Your task to perform on an android device: change notifications settings Image 0: 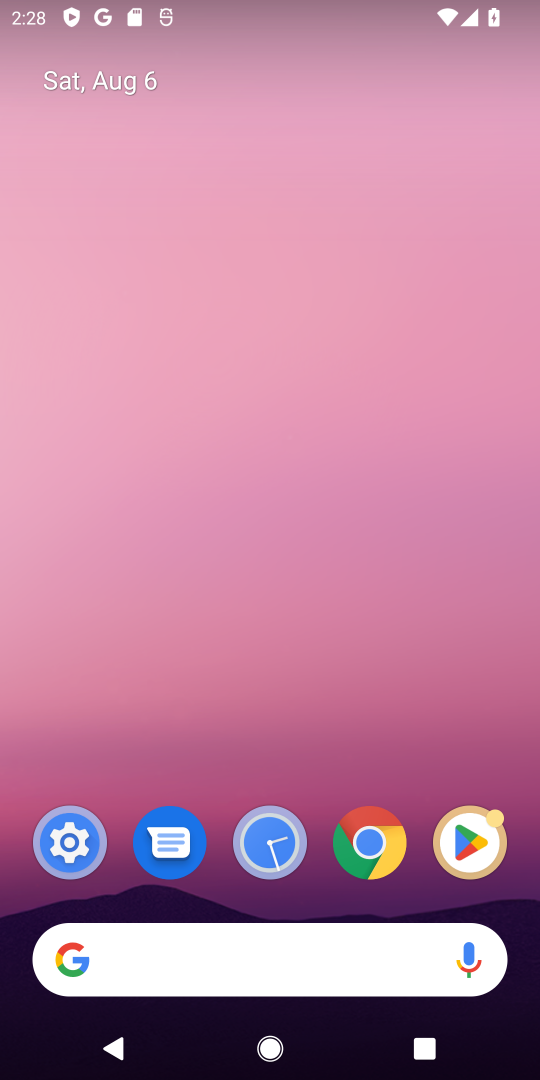
Step 0: drag from (506, 1016) to (386, 247)
Your task to perform on an android device: change notifications settings Image 1: 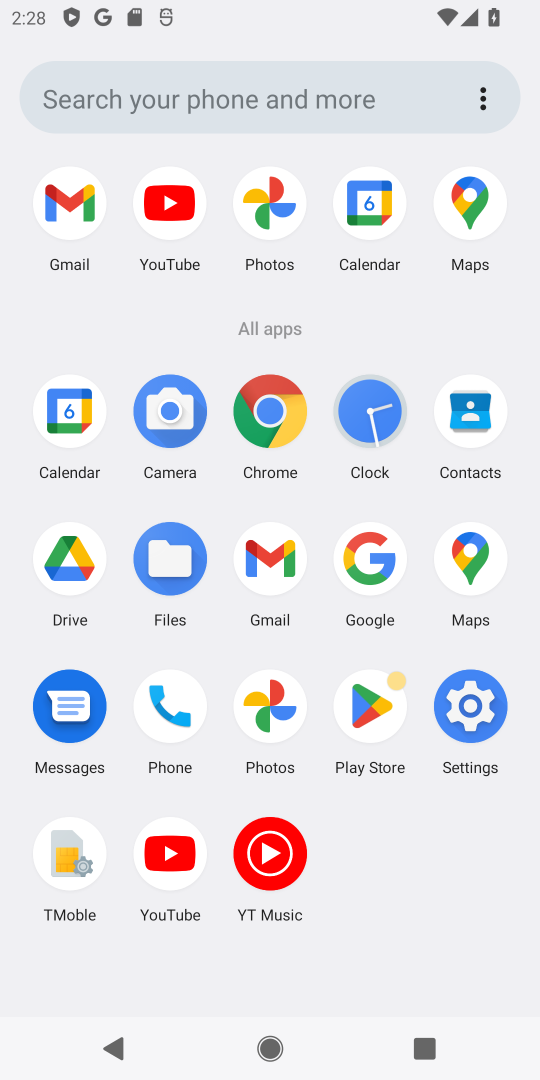
Step 1: click (482, 706)
Your task to perform on an android device: change notifications settings Image 2: 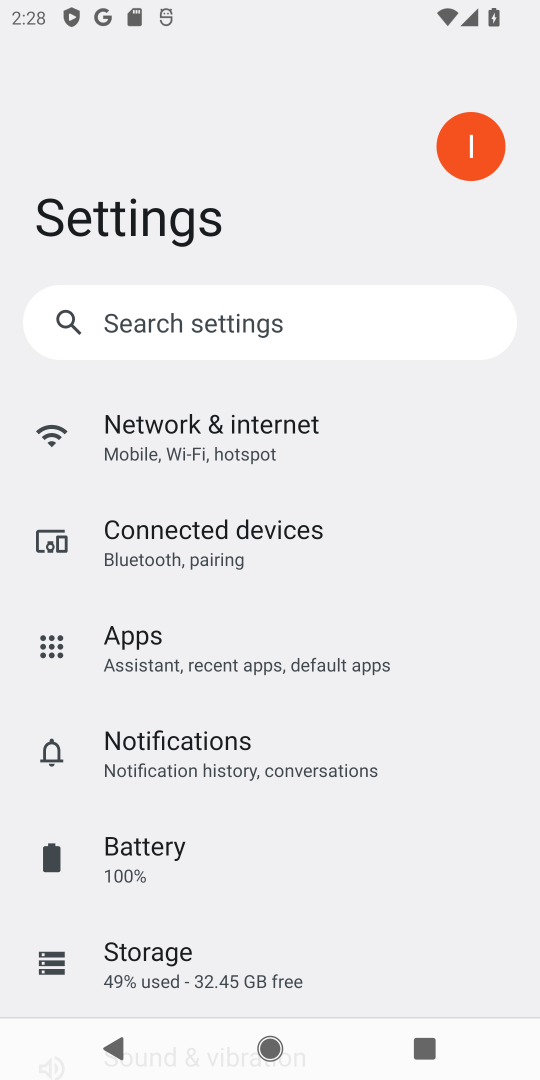
Step 2: click (175, 763)
Your task to perform on an android device: change notifications settings Image 3: 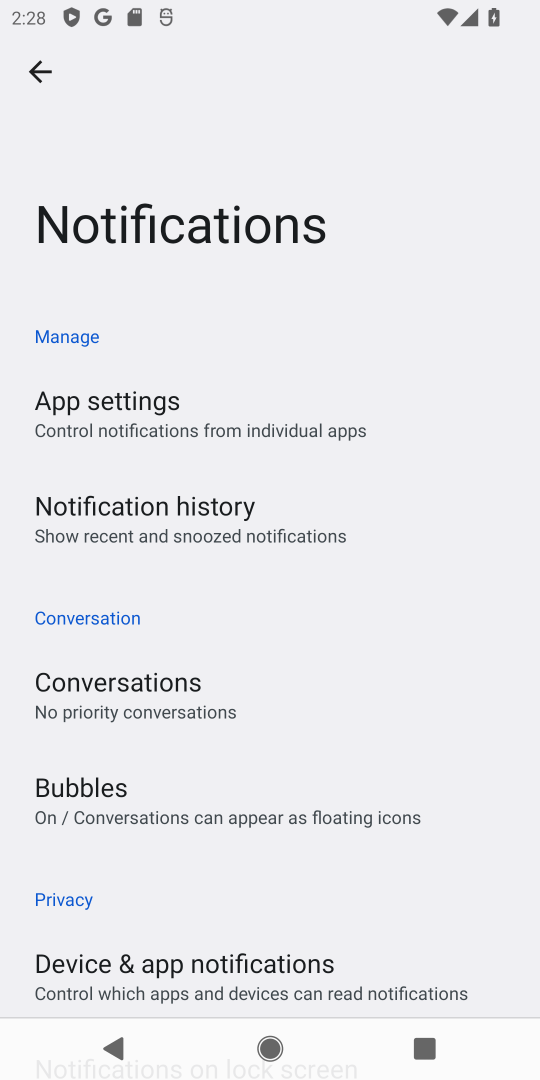
Step 3: click (155, 502)
Your task to perform on an android device: change notifications settings Image 4: 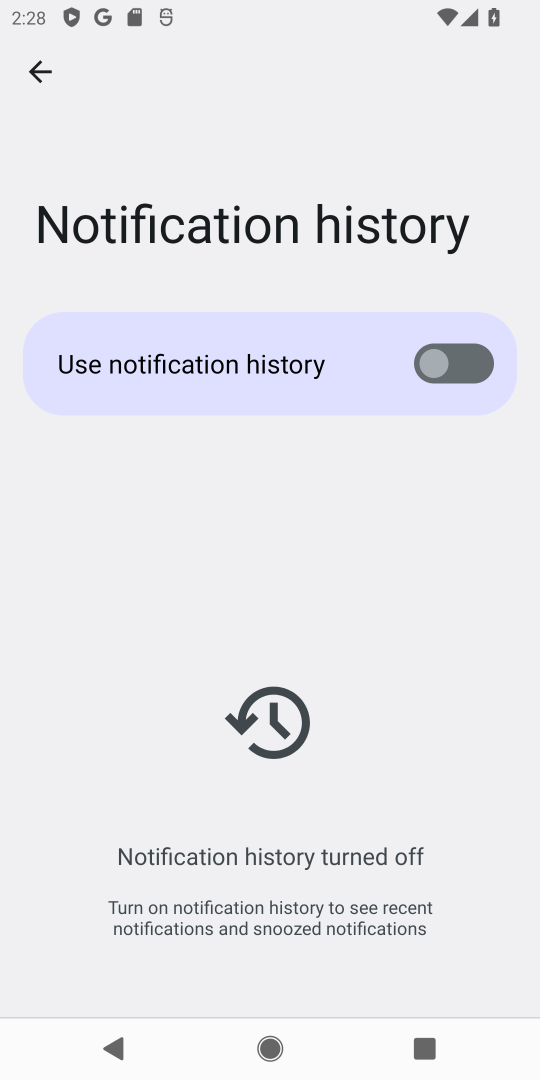
Step 4: click (464, 366)
Your task to perform on an android device: change notifications settings Image 5: 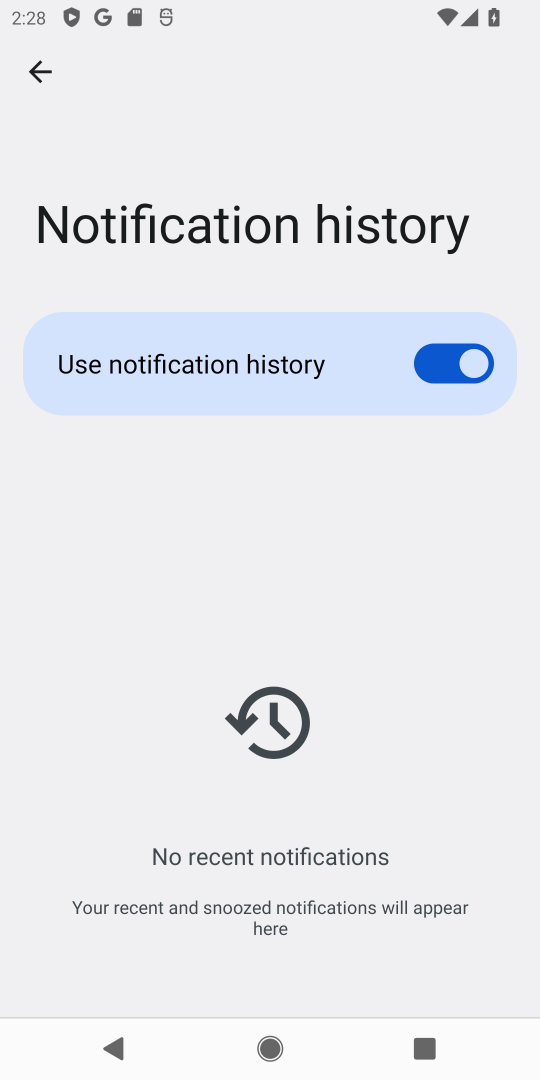
Step 5: click (25, 65)
Your task to perform on an android device: change notifications settings Image 6: 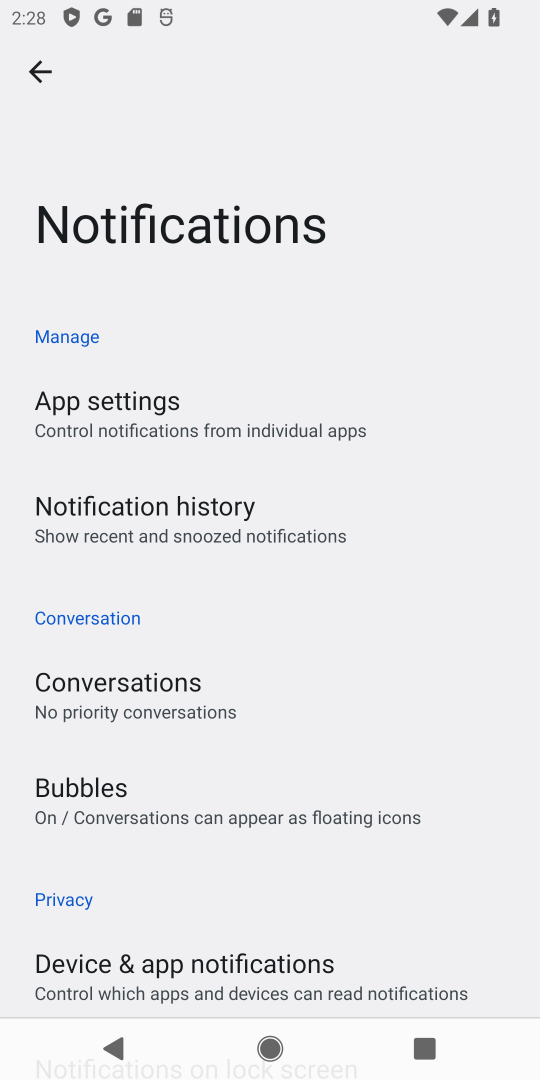
Step 6: task complete